Your task to perform on an android device: What's the weather going to be tomorrow? Image 0: 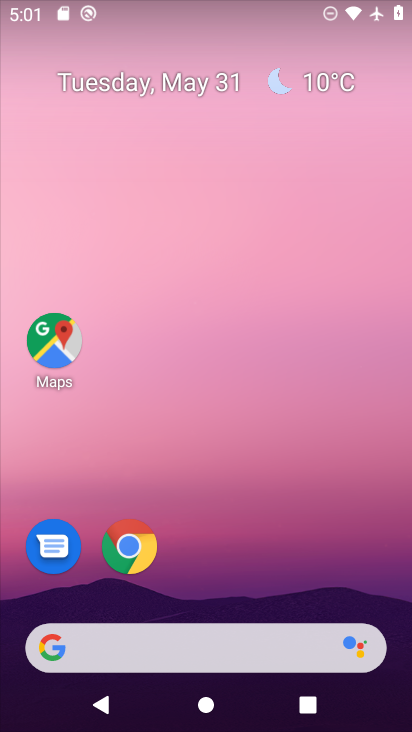
Step 0: drag from (284, 362) to (195, 7)
Your task to perform on an android device: What's the weather going to be tomorrow? Image 1: 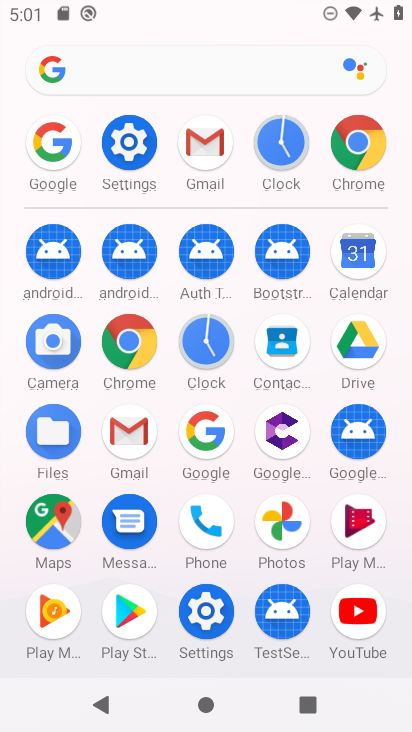
Step 1: click (199, 436)
Your task to perform on an android device: What's the weather going to be tomorrow? Image 2: 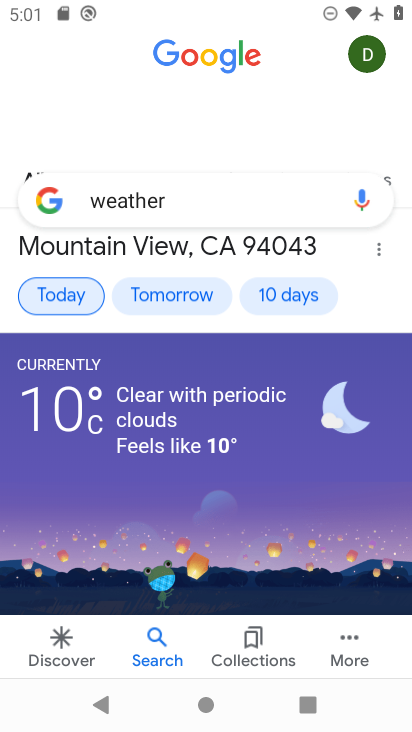
Step 2: click (182, 296)
Your task to perform on an android device: What's the weather going to be tomorrow? Image 3: 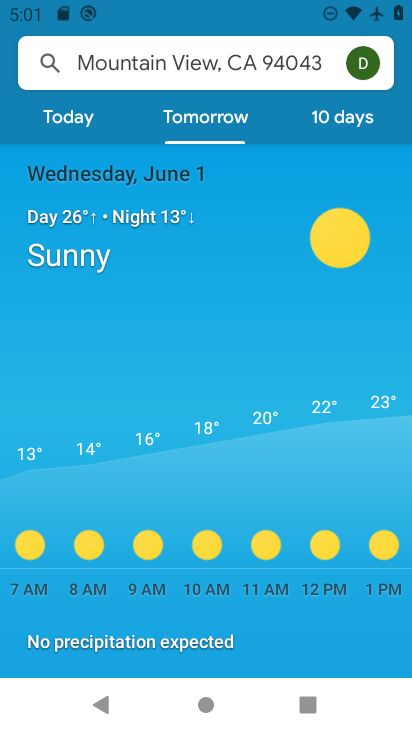
Step 3: task complete